Your task to perform on an android device: Check the news Image 0: 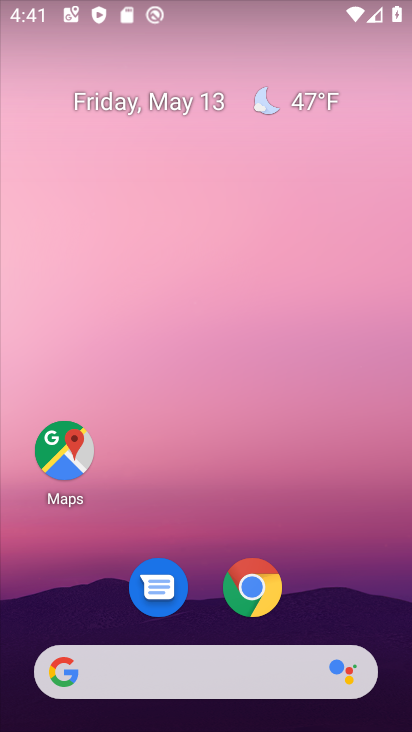
Step 0: click (241, 589)
Your task to perform on an android device: Check the news Image 1: 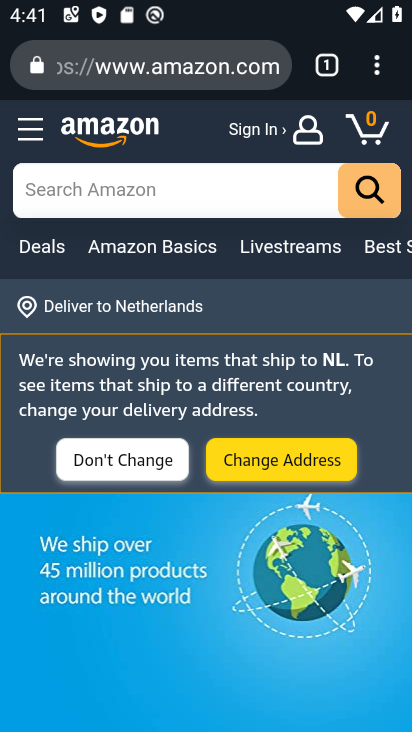
Step 1: drag from (371, 62) to (142, 125)
Your task to perform on an android device: Check the news Image 2: 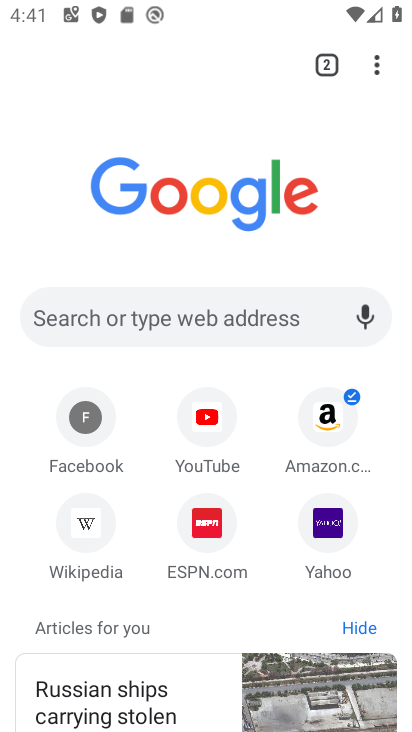
Step 2: click (113, 322)
Your task to perform on an android device: Check the news Image 3: 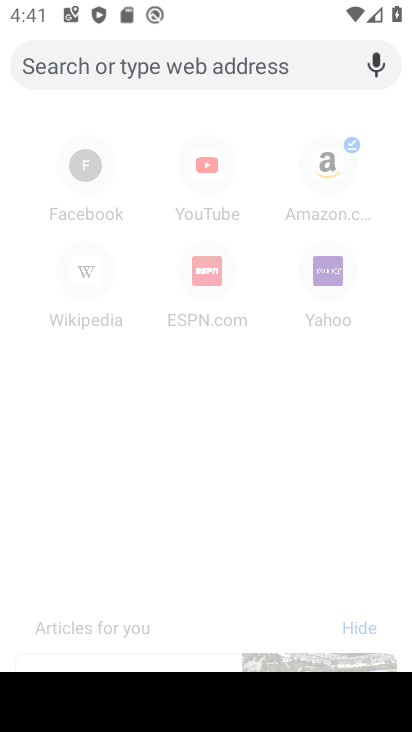
Step 3: type "Check the news"
Your task to perform on an android device: Check the news Image 4: 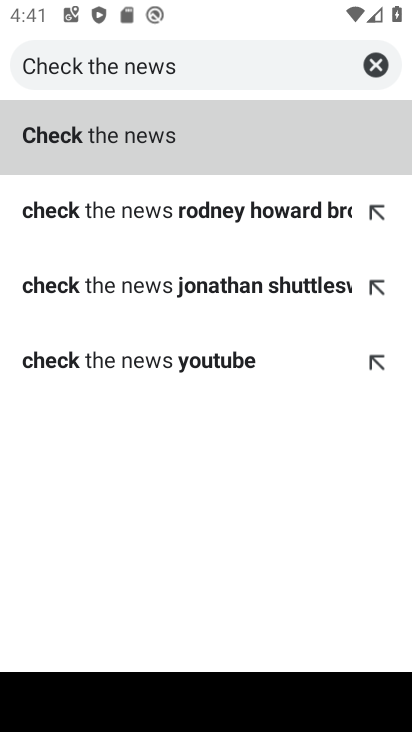
Step 4: click (146, 128)
Your task to perform on an android device: Check the news Image 5: 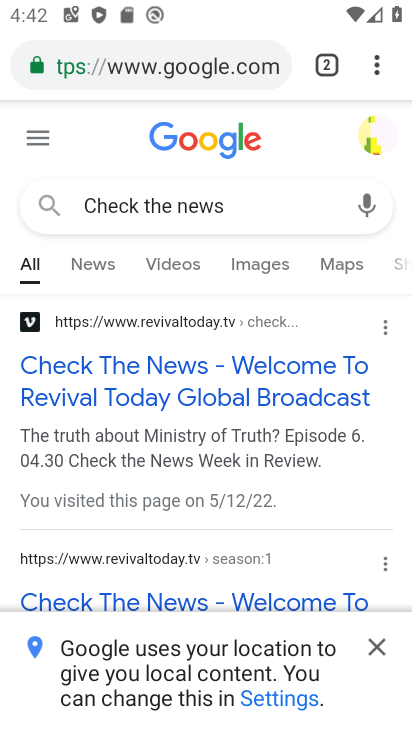
Step 5: click (108, 263)
Your task to perform on an android device: Check the news Image 6: 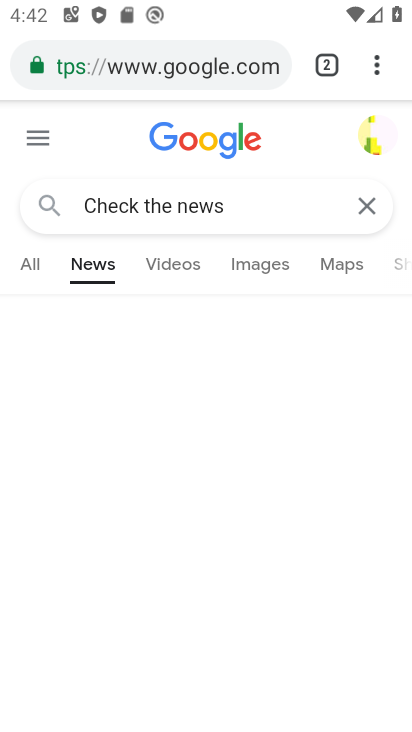
Step 6: task complete